Your task to perform on an android device: Is it going to rain today? Image 0: 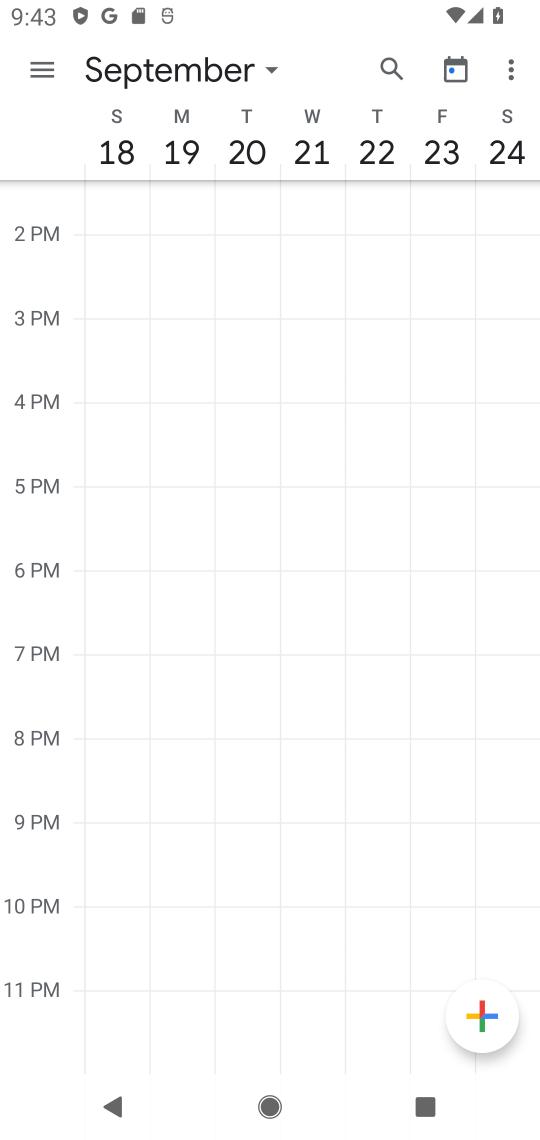
Step 0: press home button
Your task to perform on an android device: Is it going to rain today? Image 1: 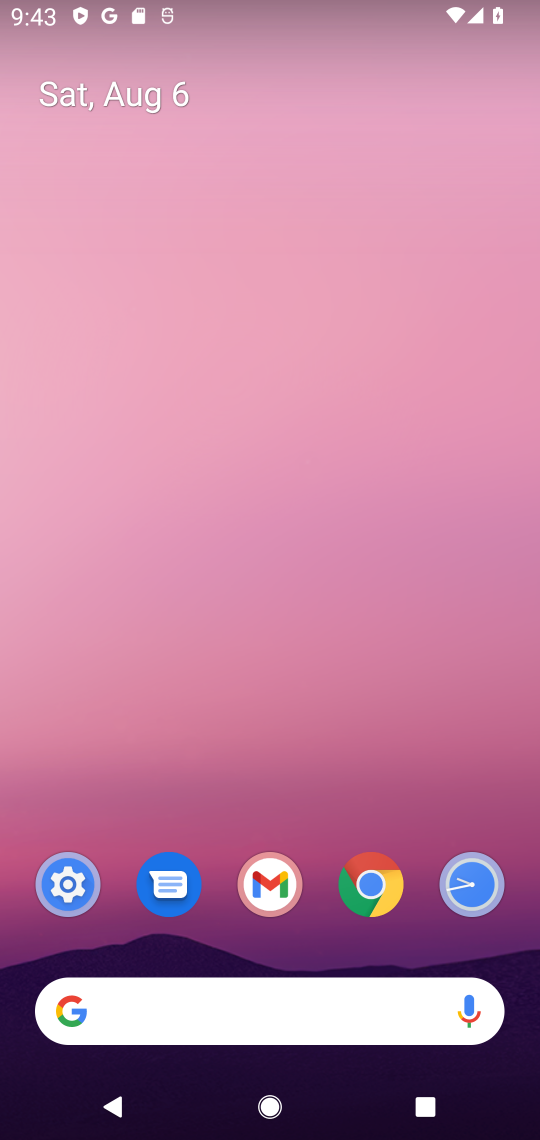
Step 1: click (168, 1003)
Your task to perform on an android device: Is it going to rain today? Image 2: 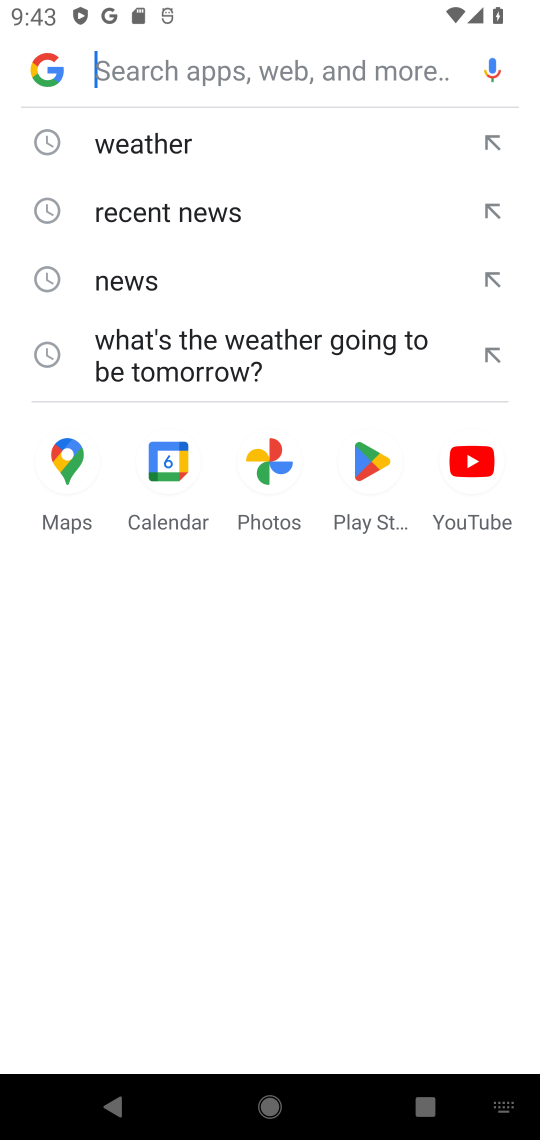
Step 2: click (159, 141)
Your task to perform on an android device: Is it going to rain today? Image 3: 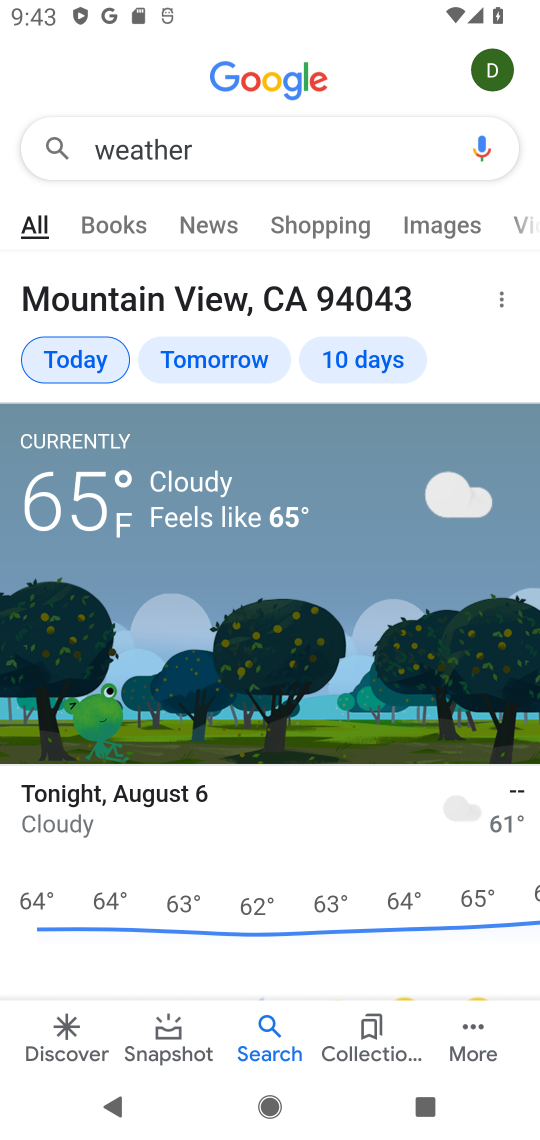
Step 3: drag from (309, 843) to (305, 460)
Your task to perform on an android device: Is it going to rain today? Image 4: 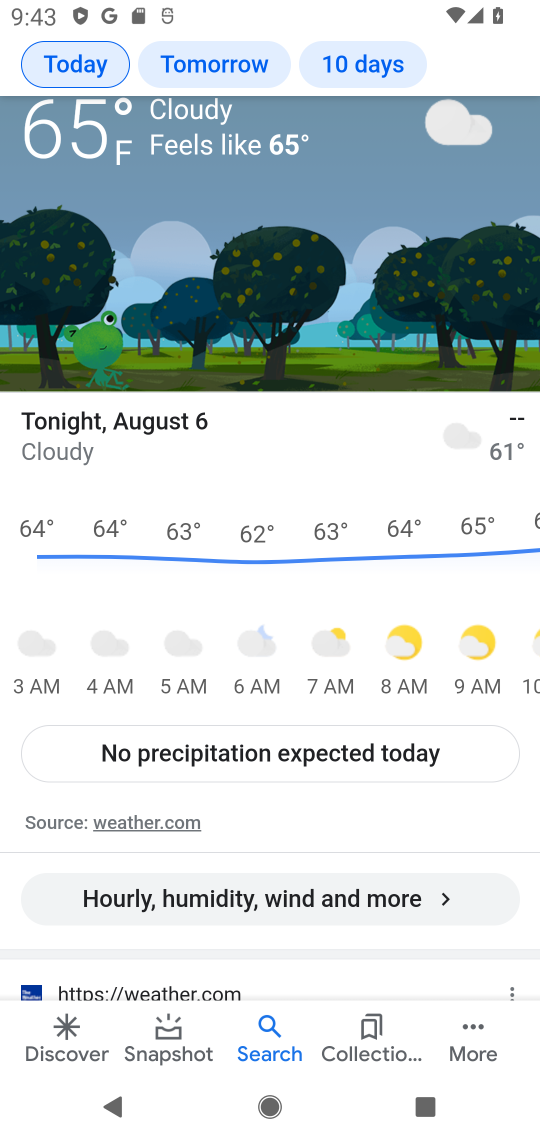
Step 4: click (475, 539)
Your task to perform on an android device: Is it going to rain today? Image 5: 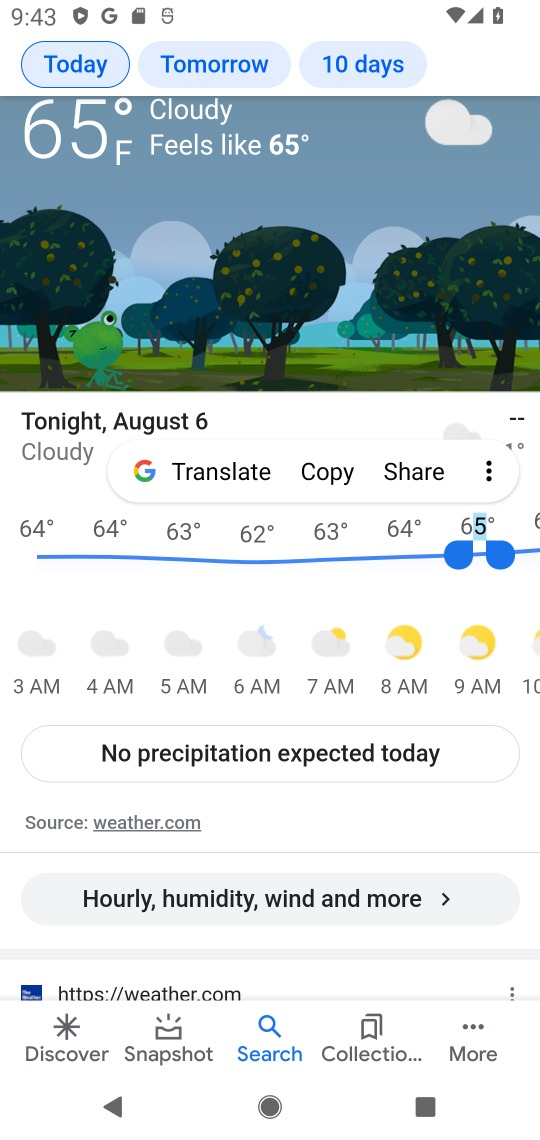
Step 5: click (460, 572)
Your task to perform on an android device: Is it going to rain today? Image 6: 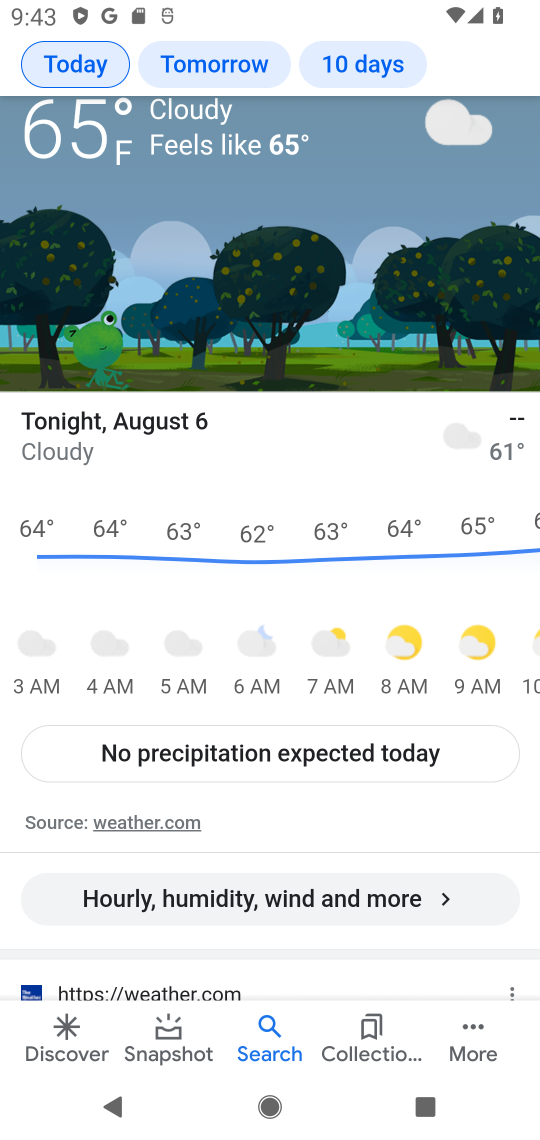
Step 6: task complete